Your task to perform on an android device: Go to display settings Image 0: 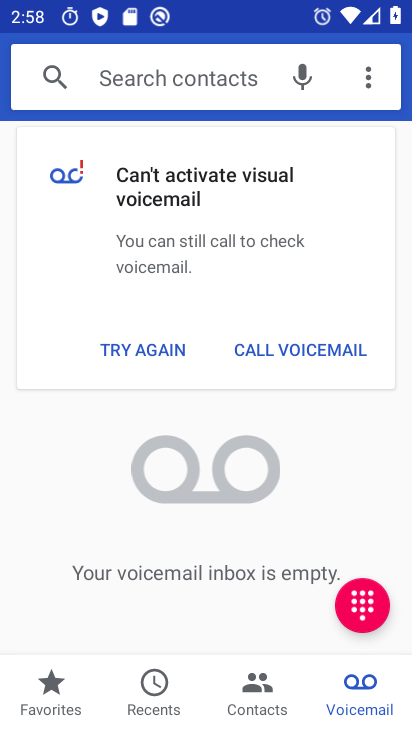
Step 0: press home button
Your task to perform on an android device: Go to display settings Image 1: 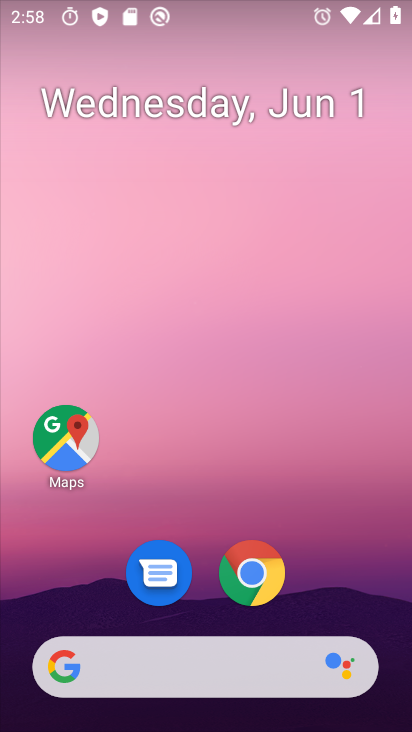
Step 1: drag from (202, 619) to (209, 274)
Your task to perform on an android device: Go to display settings Image 2: 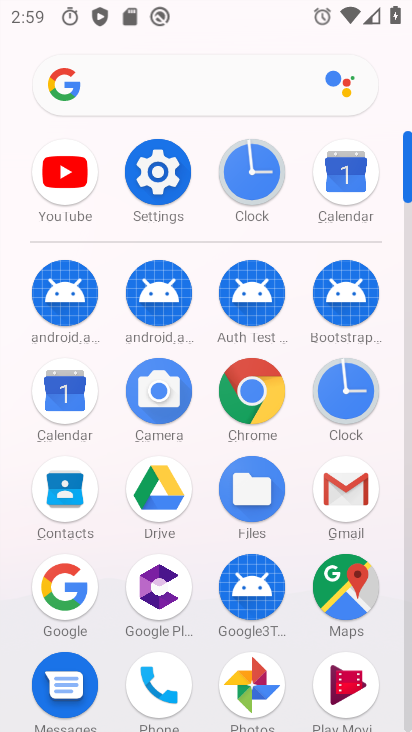
Step 2: click (160, 174)
Your task to perform on an android device: Go to display settings Image 3: 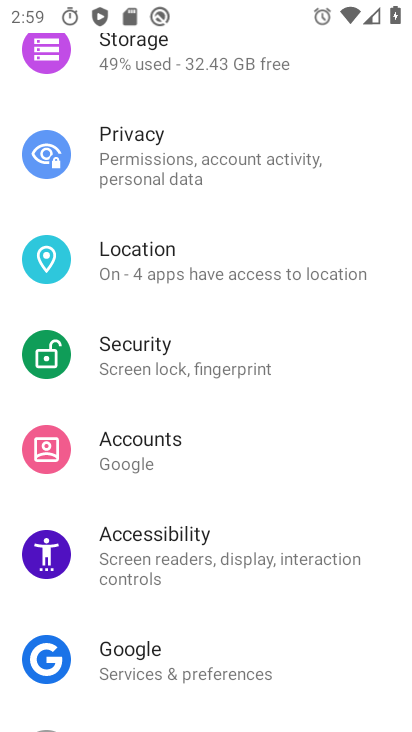
Step 3: drag from (224, 202) to (271, 549)
Your task to perform on an android device: Go to display settings Image 4: 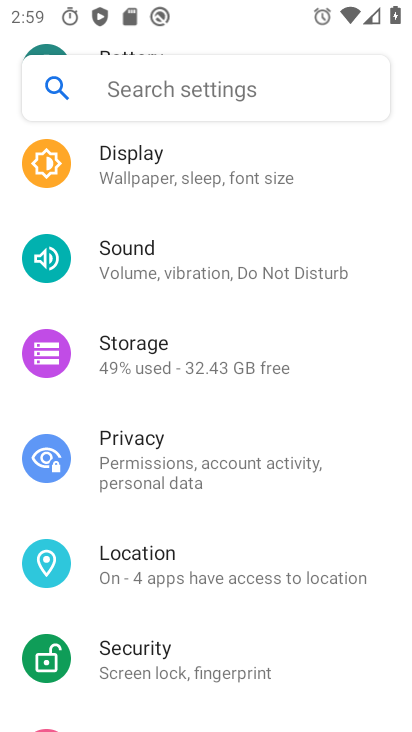
Step 4: click (200, 180)
Your task to perform on an android device: Go to display settings Image 5: 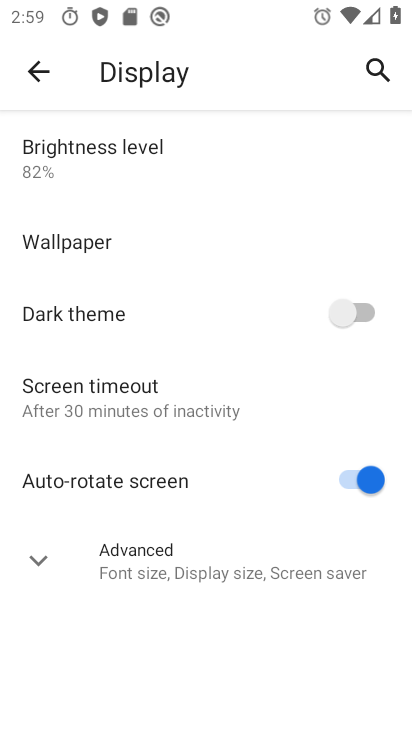
Step 5: task complete